Your task to perform on an android device: turn on location history Image 0: 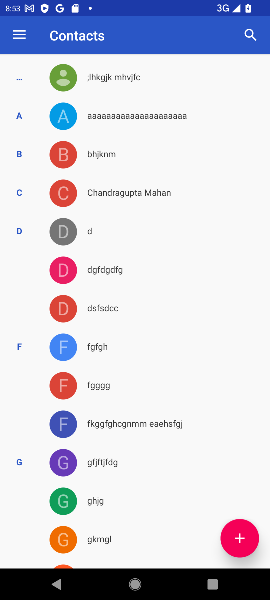
Step 0: press home button
Your task to perform on an android device: turn on location history Image 1: 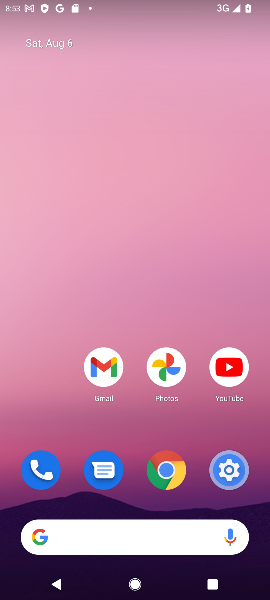
Step 1: click (239, 469)
Your task to perform on an android device: turn on location history Image 2: 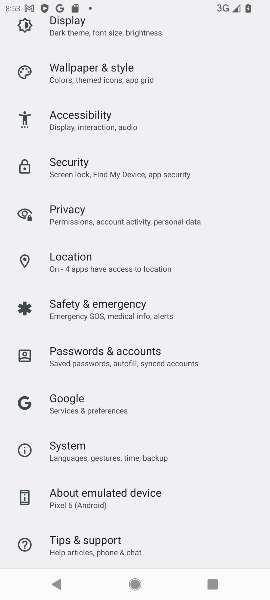
Step 2: click (146, 264)
Your task to perform on an android device: turn on location history Image 3: 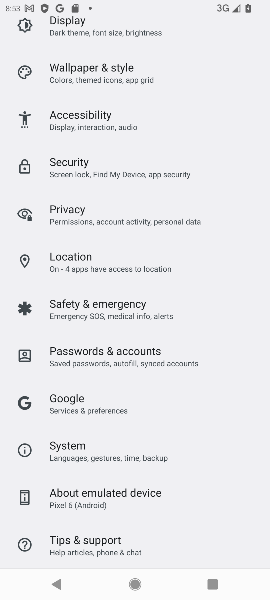
Step 3: click (146, 264)
Your task to perform on an android device: turn on location history Image 4: 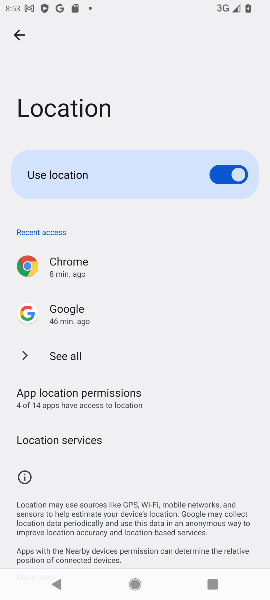
Step 4: drag from (135, 472) to (173, 100)
Your task to perform on an android device: turn on location history Image 5: 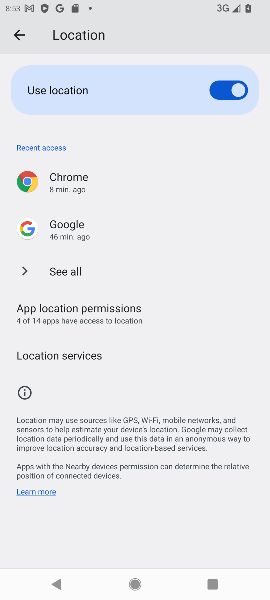
Step 5: click (84, 272)
Your task to perform on an android device: turn on location history Image 6: 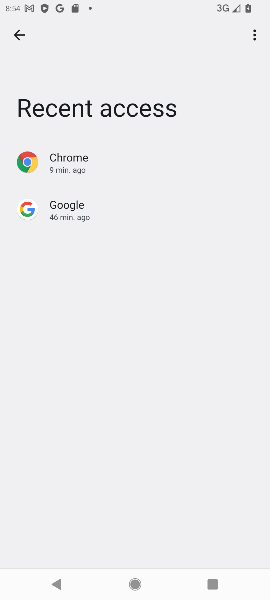
Step 6: task complete